Your task to perform on an android device: open app "Google Translate" Image 0: 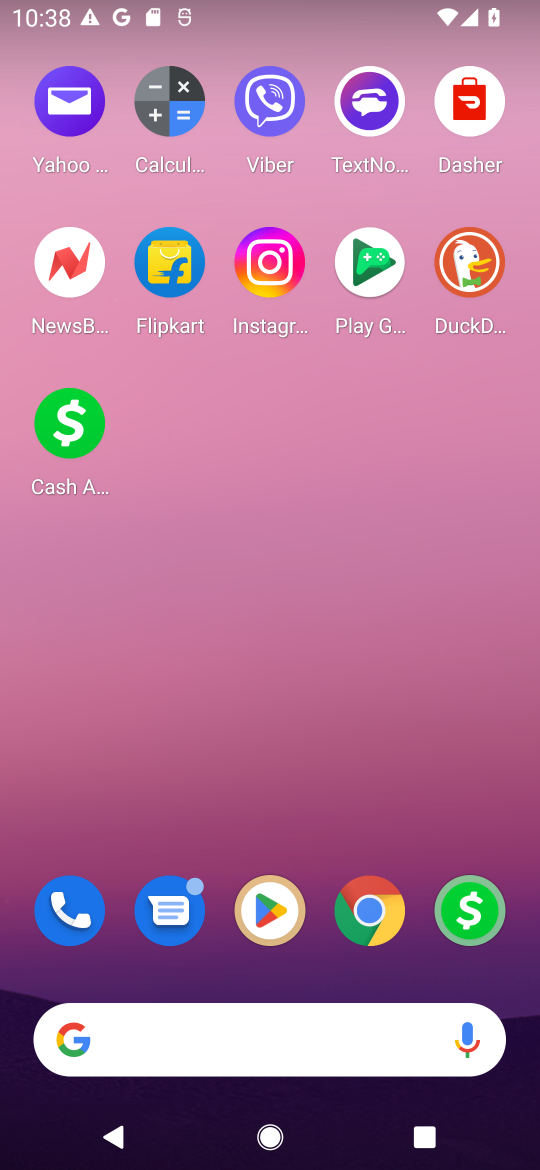
Step 0: click (286, 907)
Your task to perform on an android device: open app "Google Translate" Image 1: 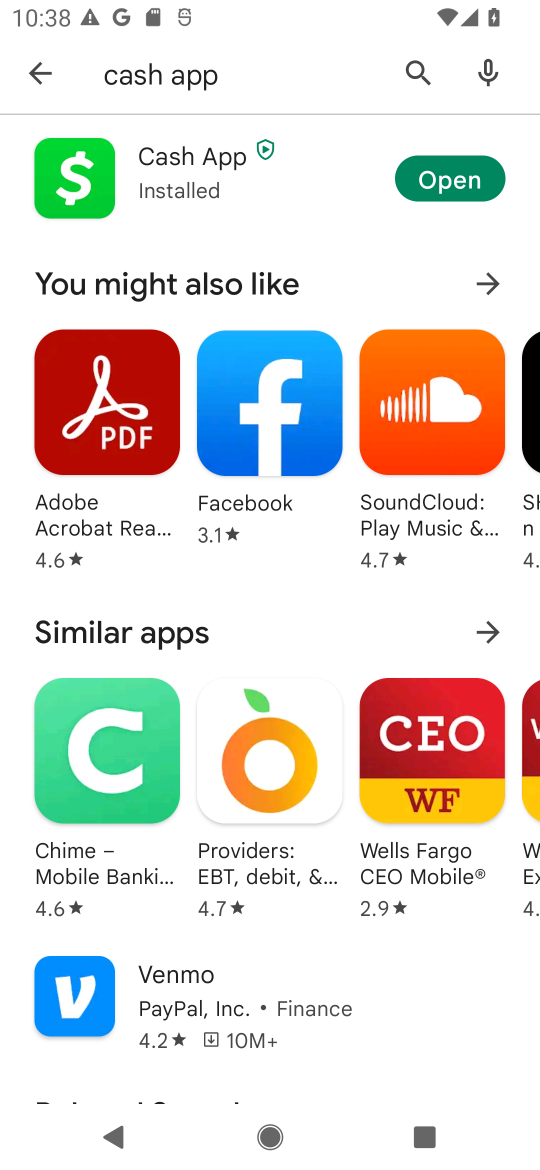
Step 1: click (407, 84)
Your task to perform on an android device: open app "Google Translate" Image 2: 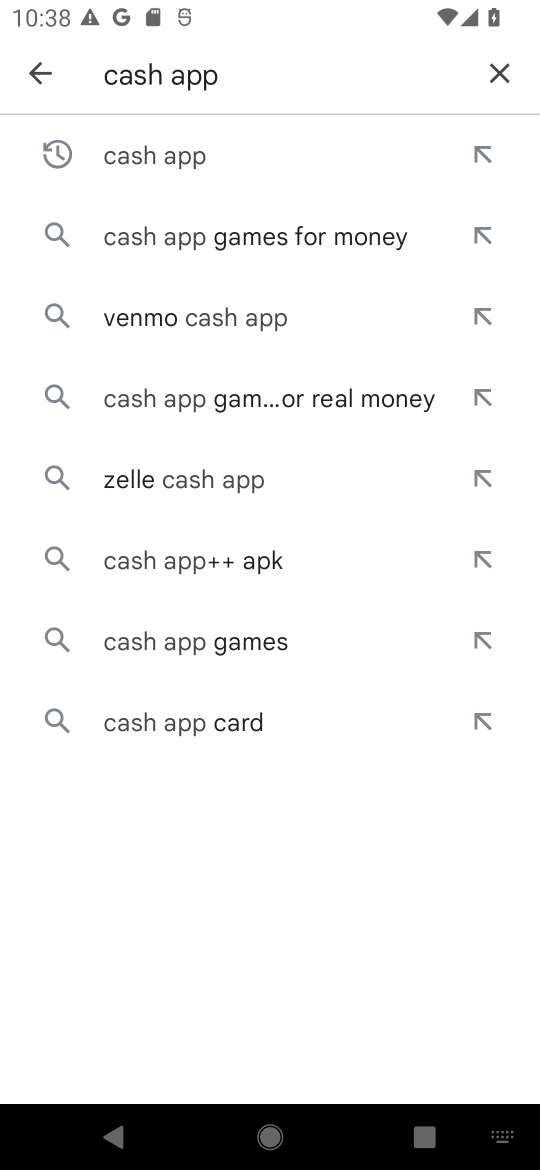
Step 2: click (506, 80)
Your task to perform on an android device: open app "Google Translate" Image 3: 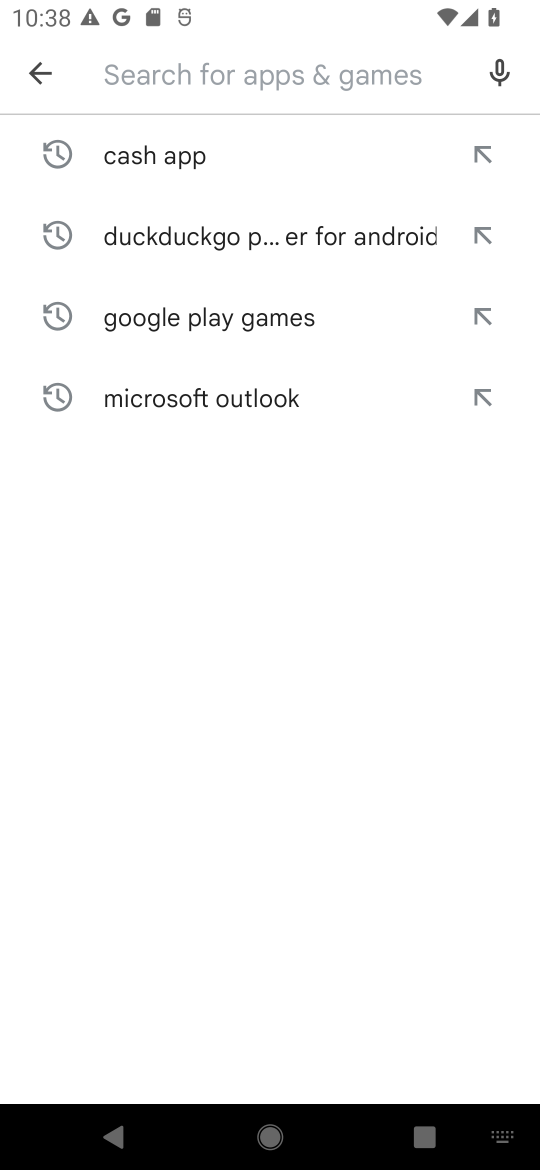
Step 3: type "Google Translate"
Your task to perform on an android device: open app "Google Translate" Image 4: 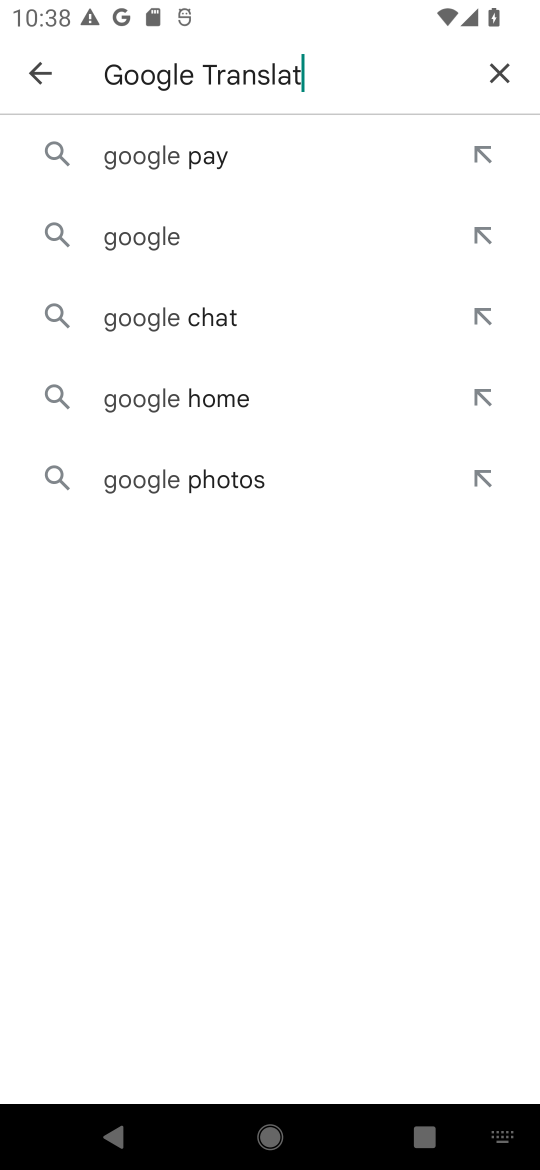
Step 4: type ""
Your task to perform on an android device: open app "Google Translate" Image 5: 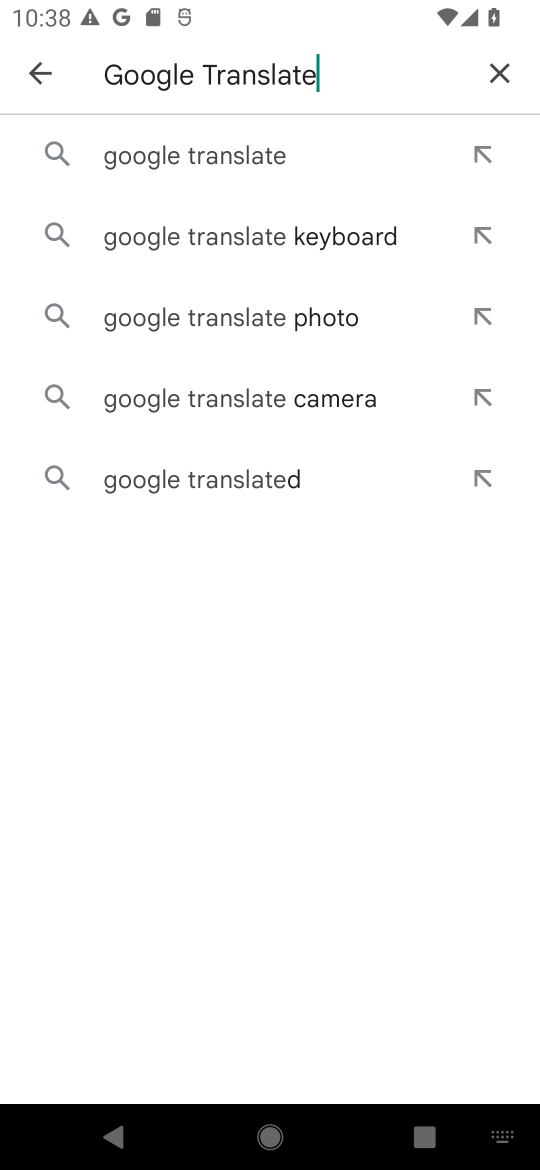
Step 5: click (249, 171)
Your task to perform on an android device: open app "Google Translate" Image 6: 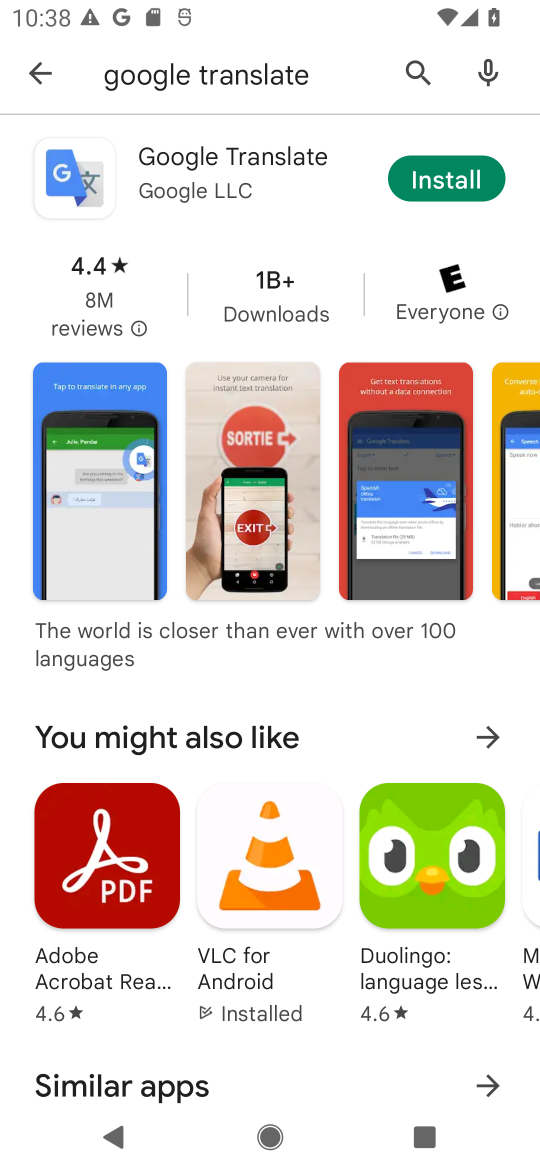
Step 6: task complete